Your task to perform on an android device: empty trash in google photos Image 0: 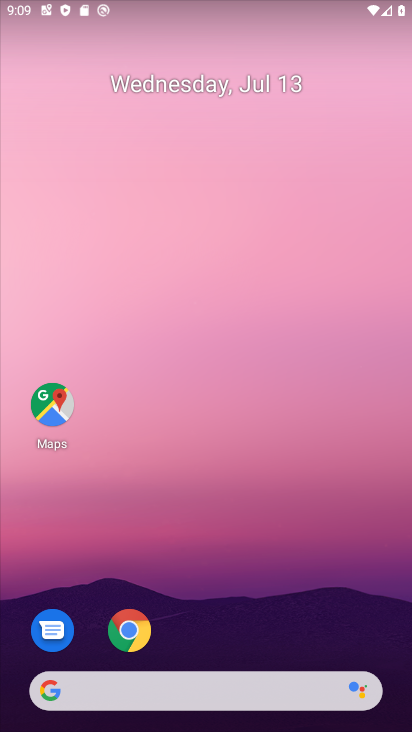
Step 0: drag from (264, 626) to (285, 37)
Your task to perform on an android device: empty trash in google photos Image 1: 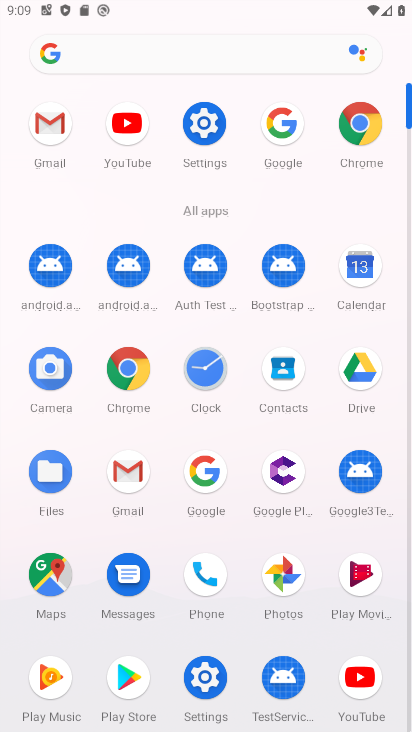
Step 1: click (277, 570)
Your task to perform on an android device: empty trash in google photos Image 2: 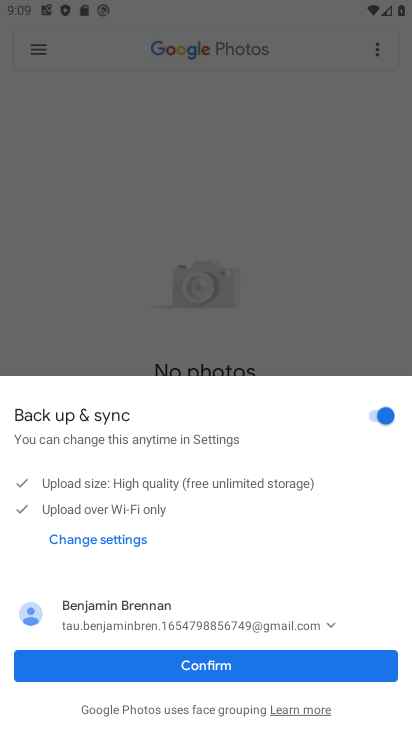
Step 2: click (222, 657)
Your task to perform on an android device: empty trash in google photos Image 3: 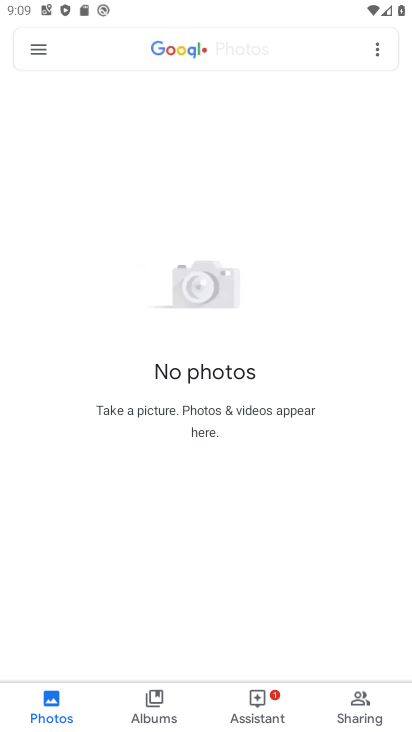
Step 3: click (45, 53)
Your task to perform on an android device: empty trash in google photos Image 4: 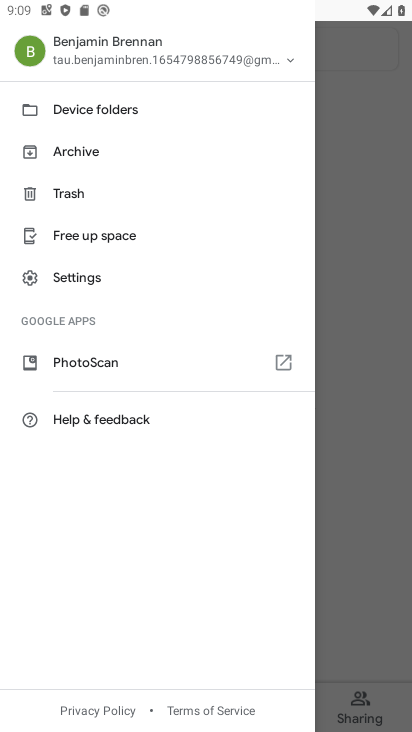
Step 4: click (88, 195)
Your task to perform on an android device: empty trash in google photos Image 5: 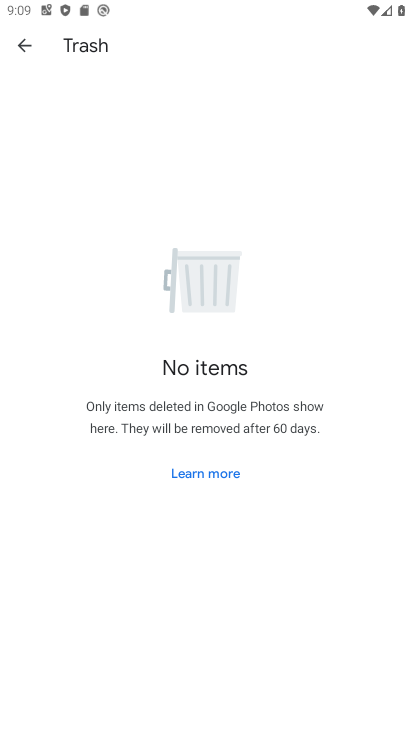
Step 5: task complete